Your task to perform on an android device: remove spam from my inbox in the gmail app Image 0: 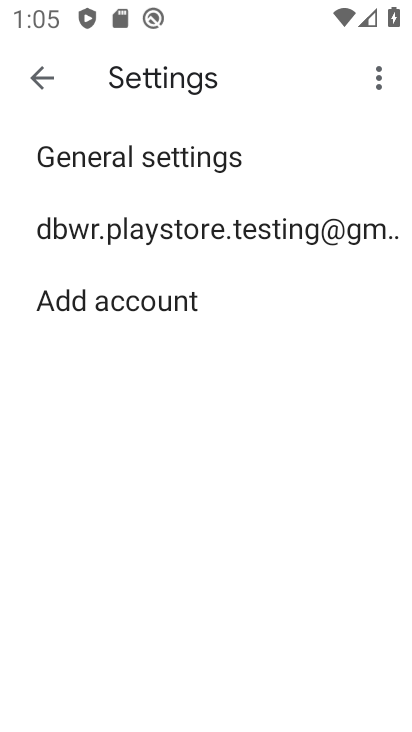
Step 0: click (137, 229)
Your task to perform on an android device: remove spam from my inbox in the gmail app Image 1: 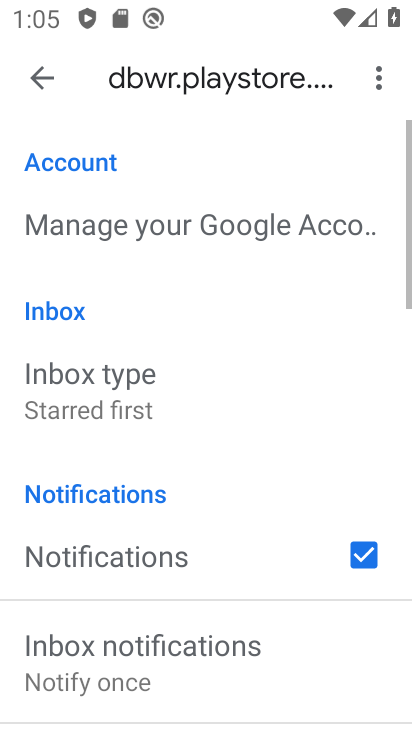
Step 1: drag from (219, 614) to (263, 256)
Your task to perform on an android device: remove spam from my inbox in the gmail app Image 2: 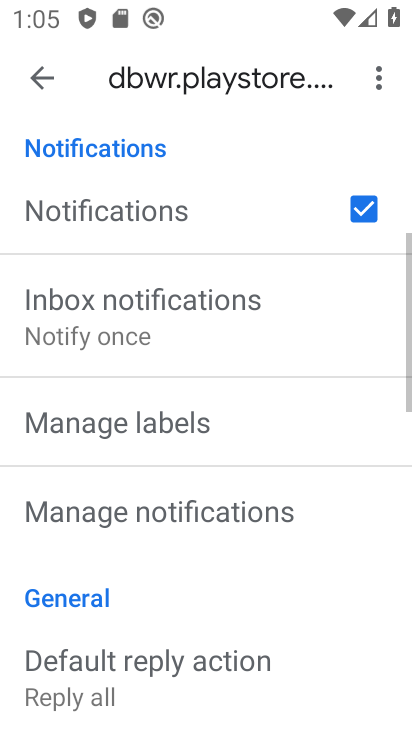
Step 2: drag from (216, 209) to (296, 609)
Your task to perform on an android device: remove spam from my inbox in the gmail app Image 3: 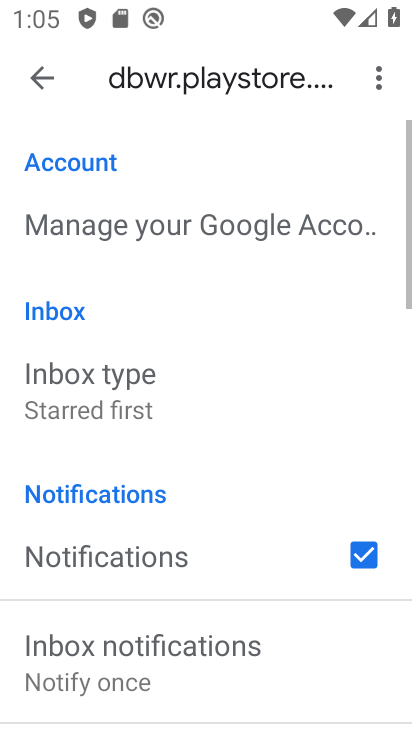
Step 3: drag from (181, 638) to (271, 262)
Your task to perform on an android device: remove spam from my inbox in the gmail app Image 4: 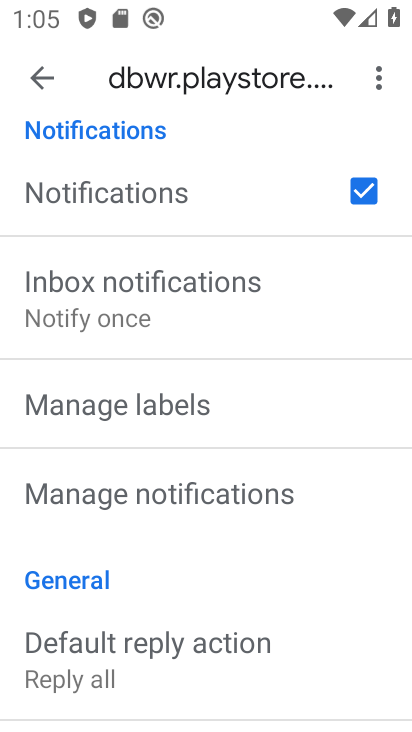
Step 4: drag from (204, 404) to (276, 237)
Your task to perform on an android device: remove spam from my inbox in the gmail app Image 5: 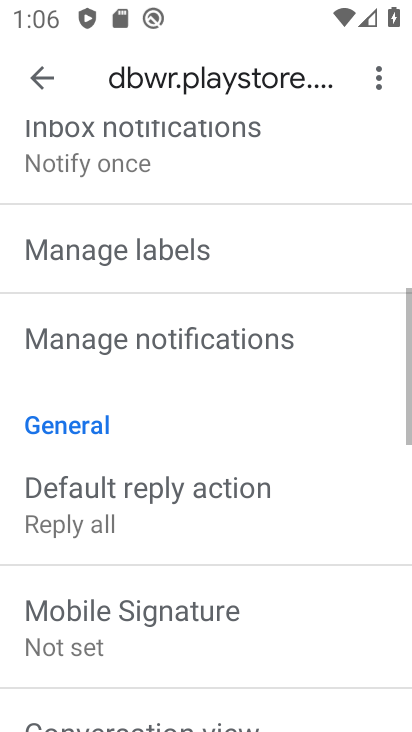
Step 5: drag from (205, 541) to (292, 111)
Your task to perform on an android device: remove spam from my inbox in the gmail app Image 6: 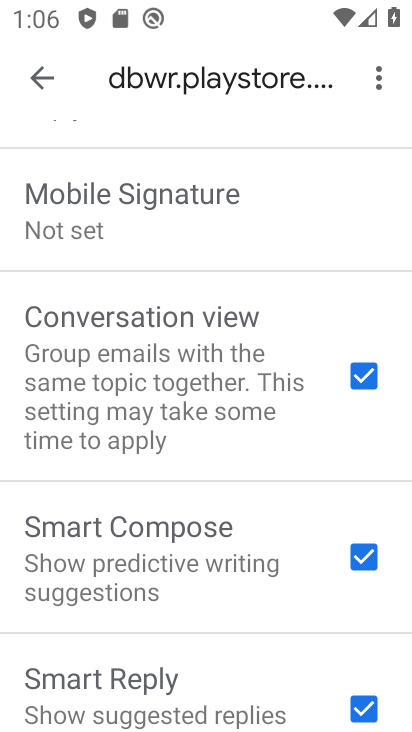
Step 6: drag from (178, 557) to (211, 208)
Your task to perform on an android device: remove spam from my inbox in the gmail app Image 7: 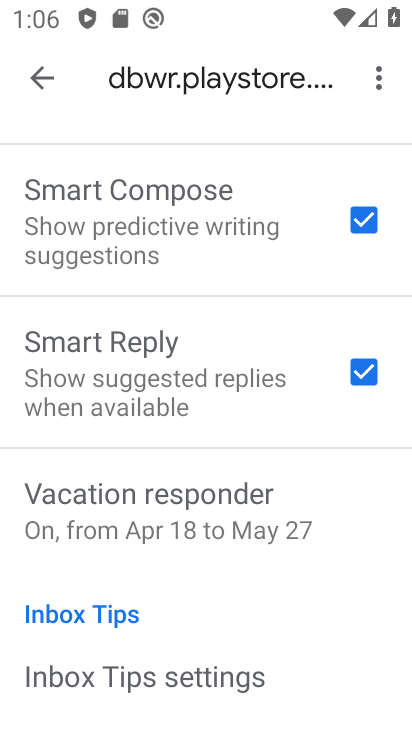
Step 7: drag from (166, 632) to (211, 210)
Your task to perform on an android device: remove spam from my inbox in the gmail app Image 8: 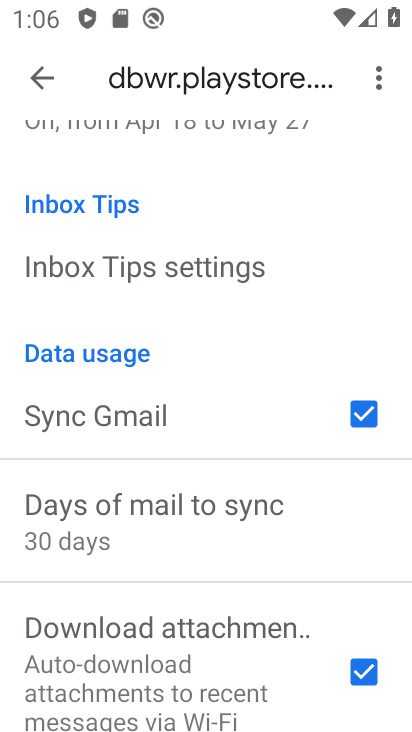
Step 8: drag from (202, 227) to (256, 707)
Your task to perform on an android device: remove spam from my inbox in the gmail app Image 9: 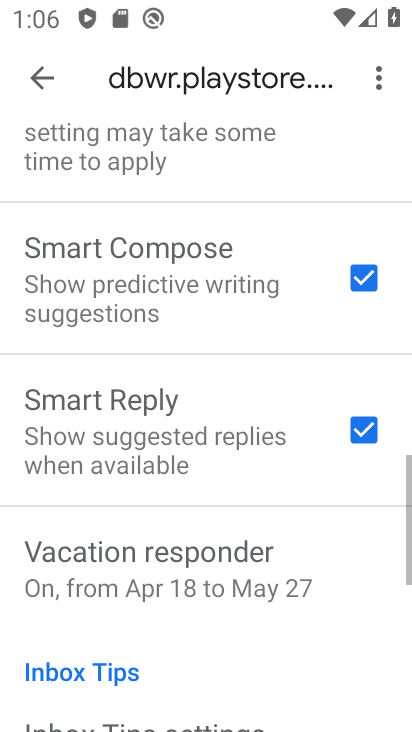
Step 9: drag from (154, 274) to (254, 723)
Your task to perform on an android device: remove spam from my inbox in the gmail app Image 10: 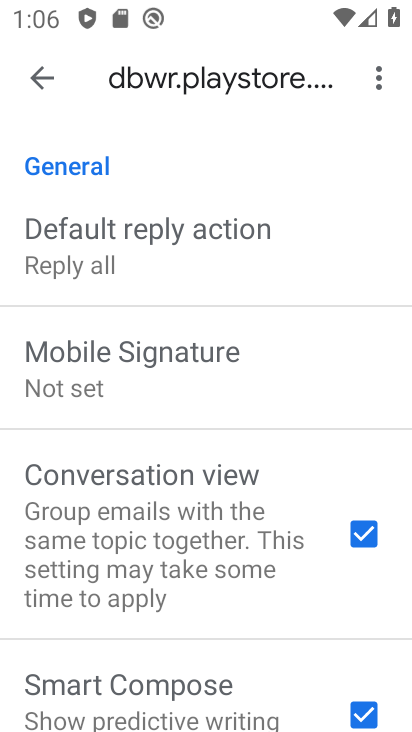
Step 10: drag from (155, 294) to (246, 724)
Your task to perform on an android device: remove spam from my inbox in the gmail app Image 11: 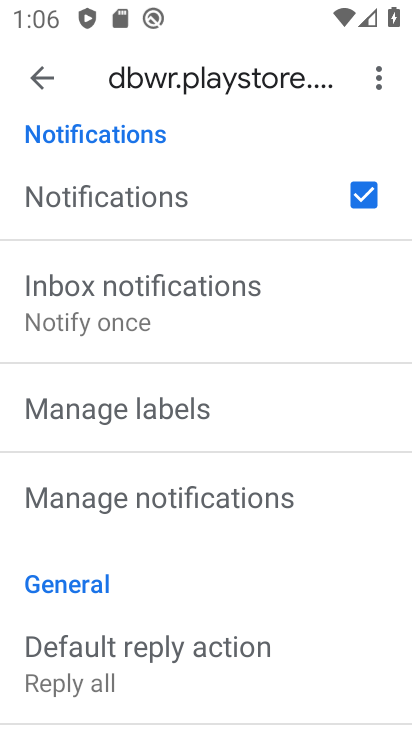
Step 11: drag from (215, 464) to (309, 723)
Your task to perform on an android device: remove spam from my inbox in the gmail app Image 12: 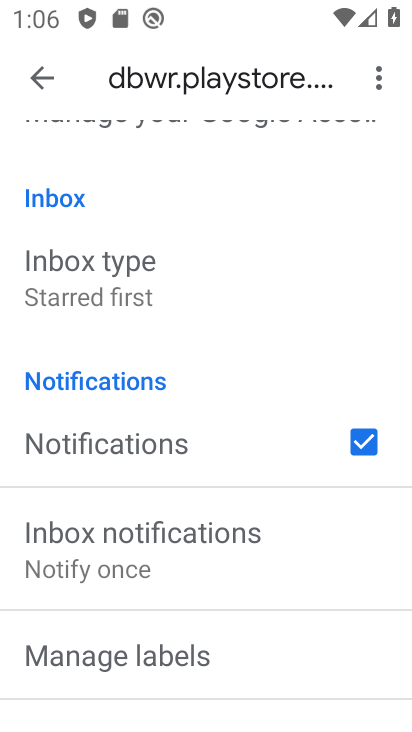
Step 12: press back button
Your task to perform on an android device: remove spam from my inbox in the gmail app Image 13: 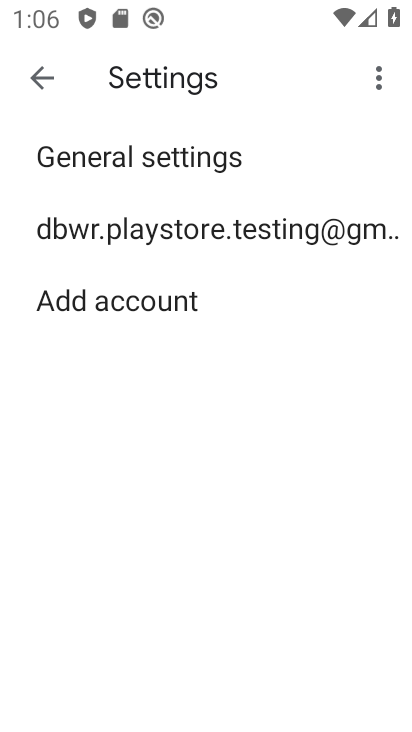
Step 13: press back button
Your task to perform on an android device: remove spam from my inbox in the gmail app Image 14: 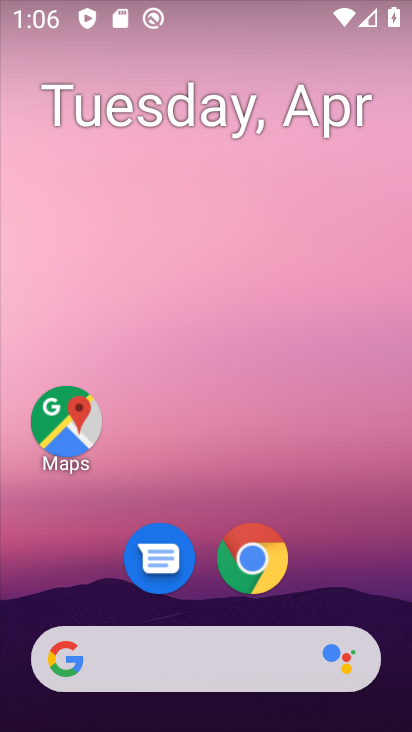
Step 14: drag from (218, 566) to (262, 139)
Your task to perform on an android device: remove spam from my inbox in the gmail app Image 15: 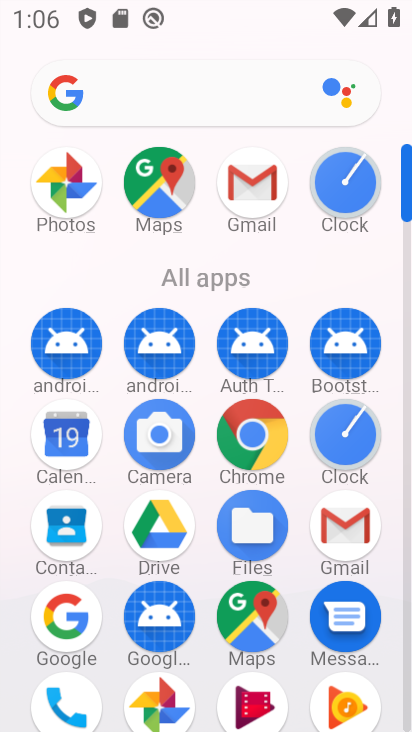
Step 15: click (350, 525)
Your task to perform on an android device: remove spam from my inbox in the gmail app Image 16: 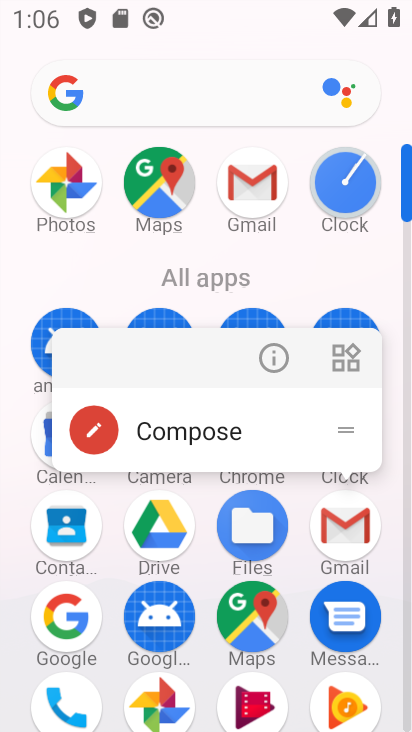
Step 16: click (271, 365)
Your task to perform on an android device: remove spam from my inbox in the gmail app Image 17: 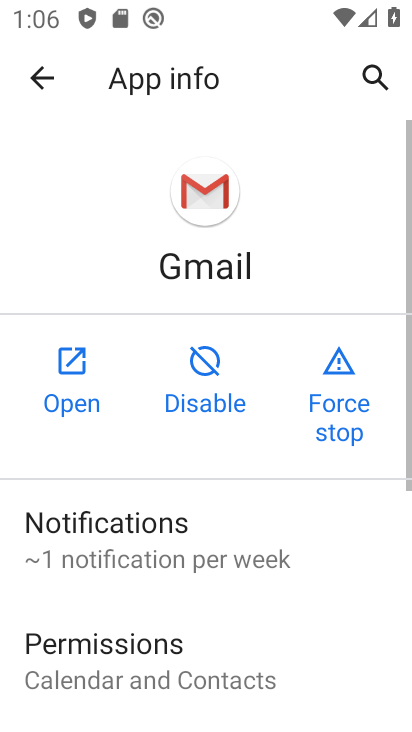
Step 17: click (46, 380)
Your task to perform on an android device: remove spam from my inbox in the gmail app Image 18: 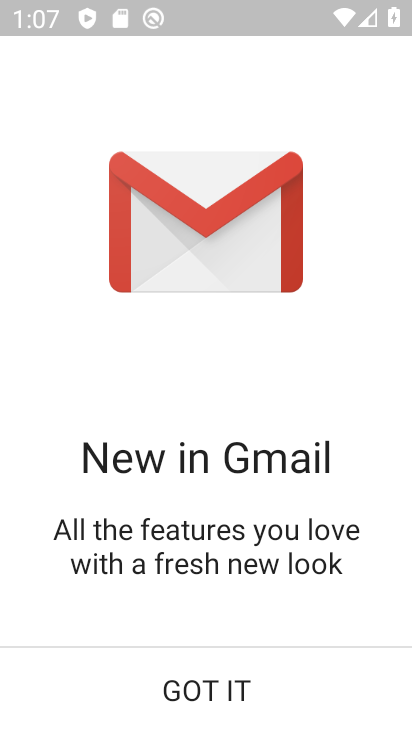
Step 18: click (188, 681)
Your task to perform on an android device: remove spam from my inbox in the gmail app Image 19: 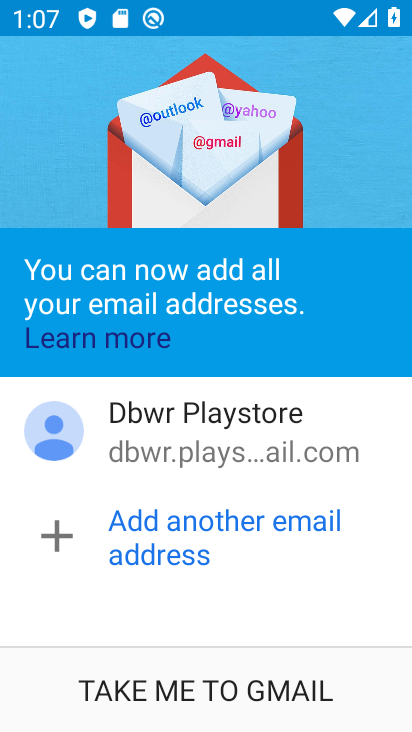
Step 19: click (170, 674)
Your task to perform on an android device: remove spam from my inbox in the gmail app Image 20: 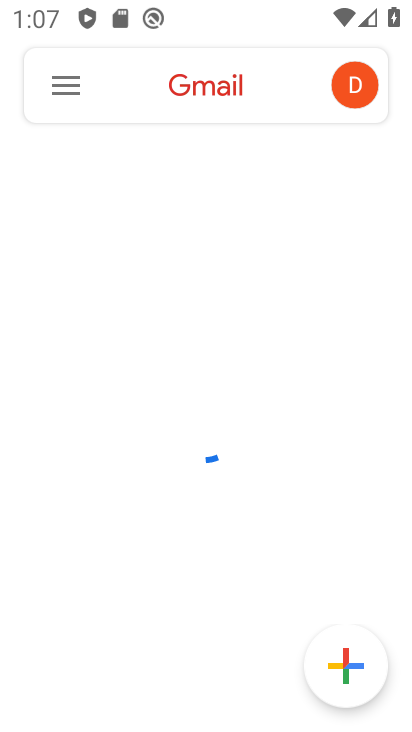
Step 20: click (74, 80)
Your task to perform on an android device: remove spam from my inbox in the gmail app Image 21: 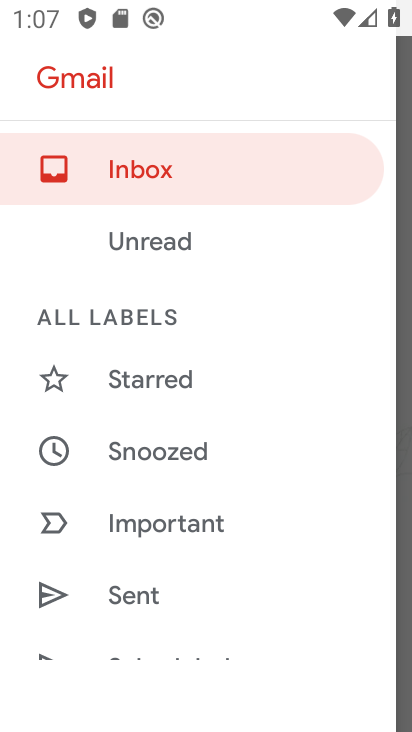
Step 21: drag from (189, 509) to (234, 204)
Your task to perform on an android device: remove spam from my inbox in the gmail app Image 22: 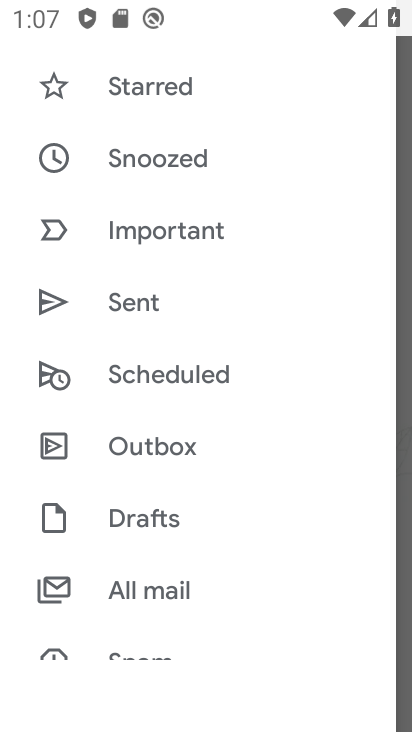
Step 22: drag from (203, 555) to (240, 167)
Your task to perform on an android device: remove spam from my inbox in the gmail app Image 23: 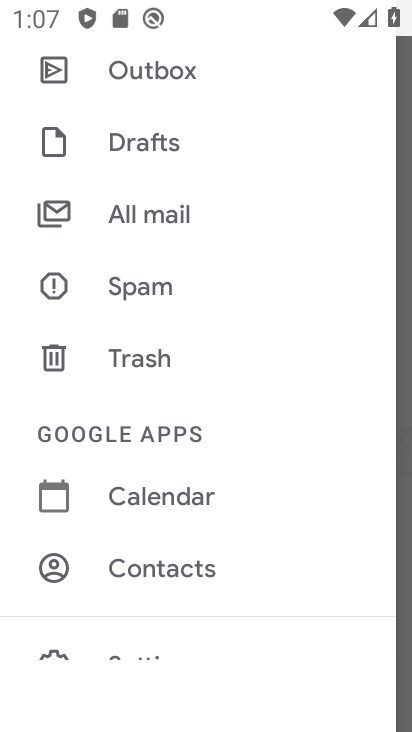
Step 23: click (151, 297)
Your task to perform on an android device: remove spam from my inbox in the gmail app Image 24: 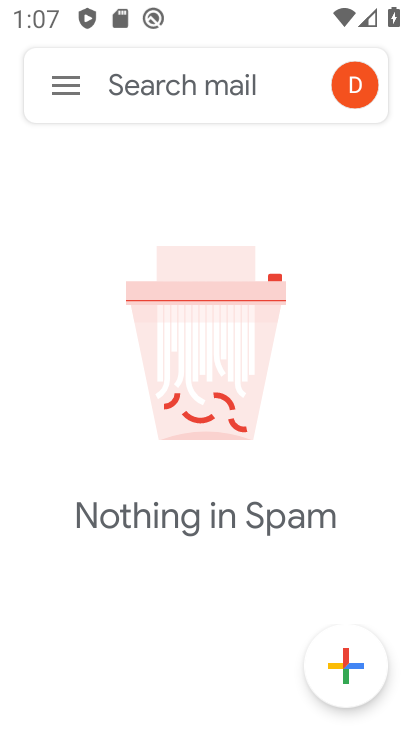
Step 24: task complete